Your task to perform on an android device: Open Google Chrome Image 0: 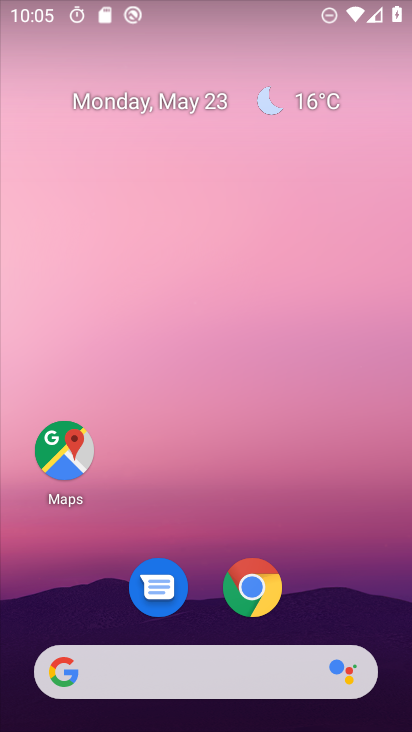
Step 0: click (259, 580)
Your task to perform on an android device: Open Google Chrome Image 1: 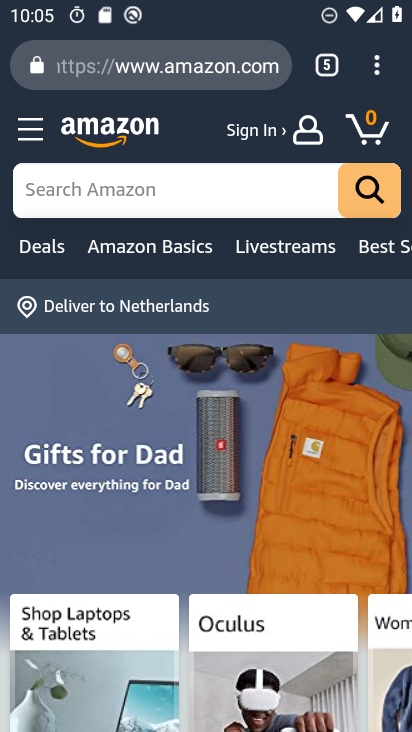
Step 1: task complete